Your task to perform on an android device: Is it going to rain tomorrow? Image 0: 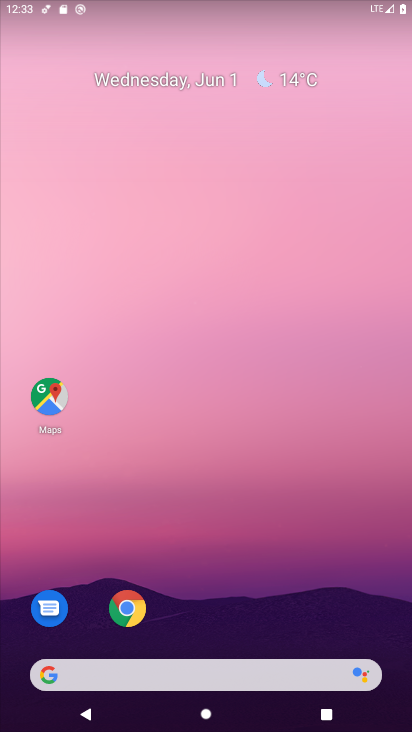
Step 0: drag from (226, 580) to (267, 300)
Your task to perform on an android device: Is it going to rain tomorrow? Image 1: 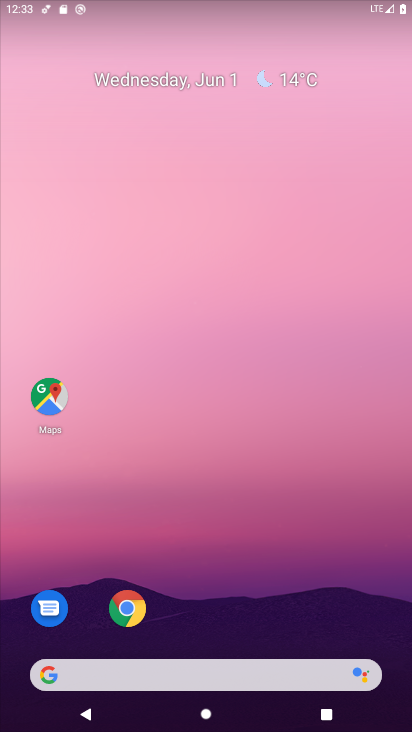
Step 1: drag from (225, 629) to (328, 209)
Your task to perform on an android device: Is it going to rain tomorrow? Image 2: 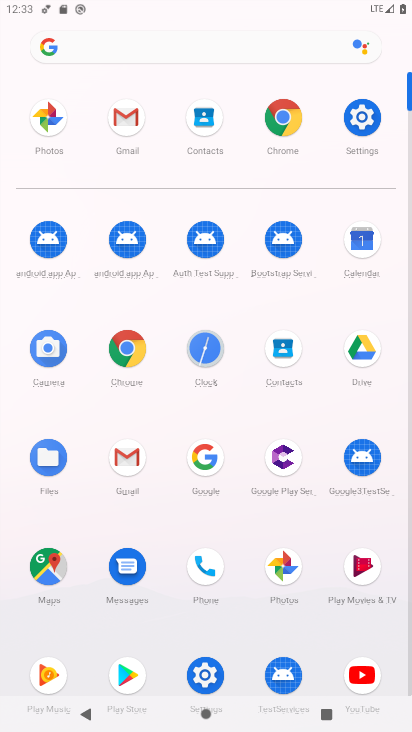
Step 2: drag from (178, 87) to (193, 393)
Your task to perform on an android device: Is it going to rain tomorrow? Image 3: 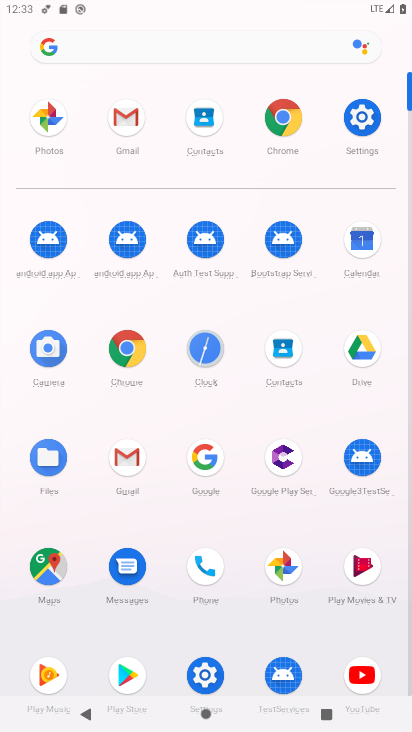
Step 3: click (170, 29)
Your task to perform on an android device: Is it going to rain tomorrow? Image 4: 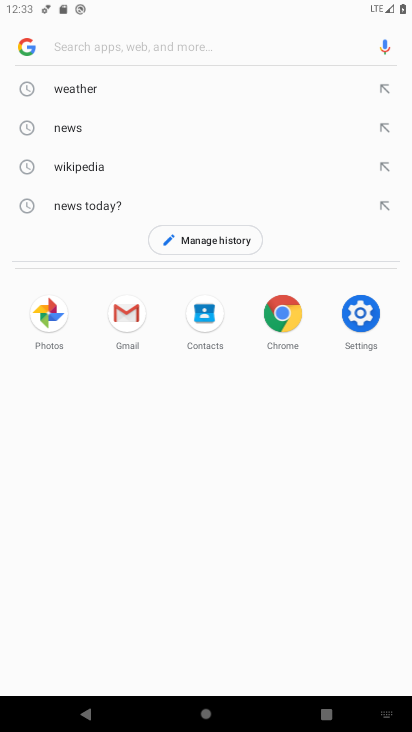
Step 4: click (110, 90)
Your task to perform on an android device: Is it going to rain tomorrow? Image 5: 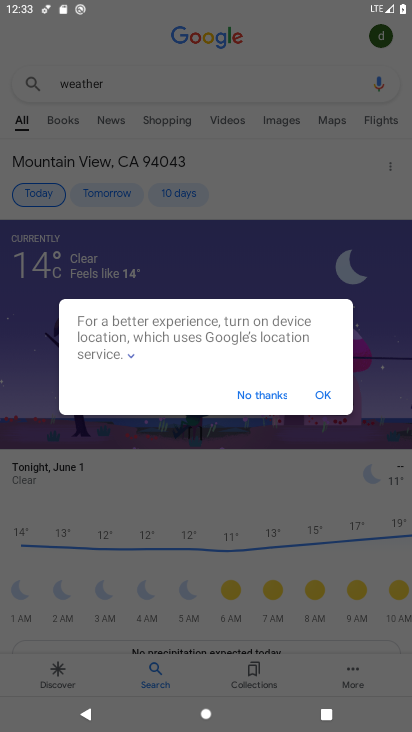
Step 5: click (260, 396)
Your task to perform on an android device: Is it going to rain tomorrow? Image 6: 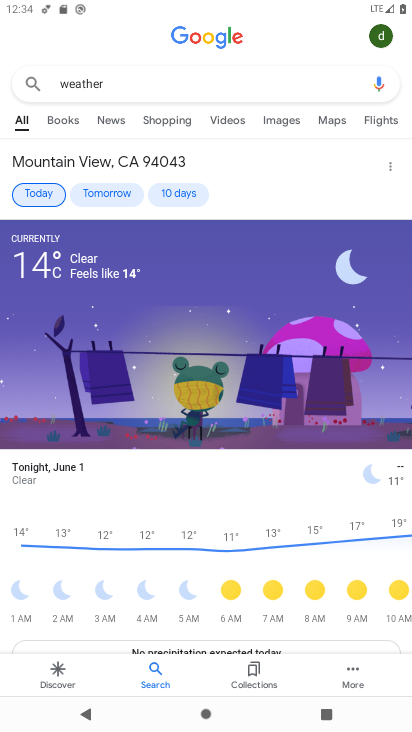
Step 6: click (96, 188)
Your task to perform on an android device: Is it going to rain tomorrow? Image 7: 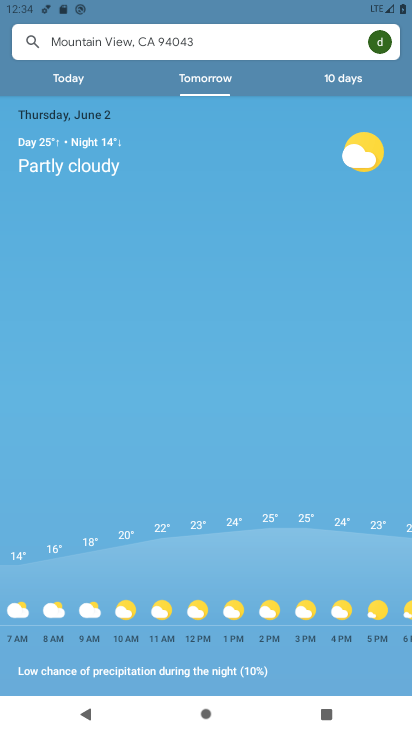
Step 7: task complete